Your task to perform on an android device: Find coffee shops on Maps Image 0: 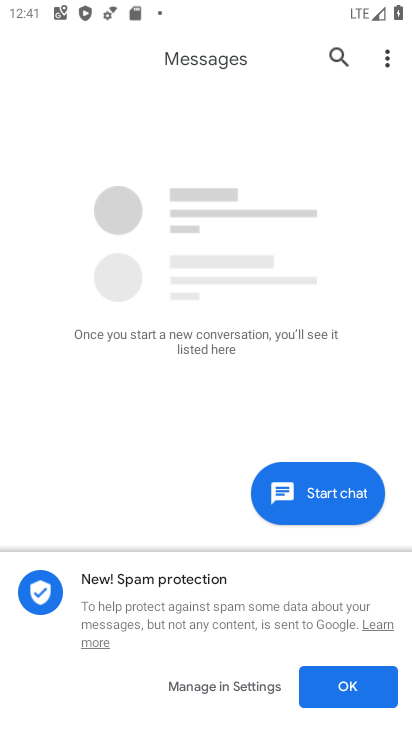
Step 0: press home button
Your task to perform on an android device: Find coffee shops on Maps Image 1: 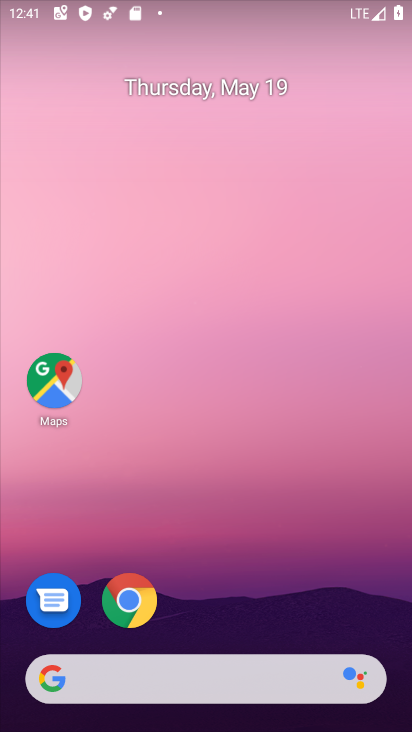
Step 1: click (49, 382)
Your task to perform on an android device: Find coffee shops on Maps Image 2: 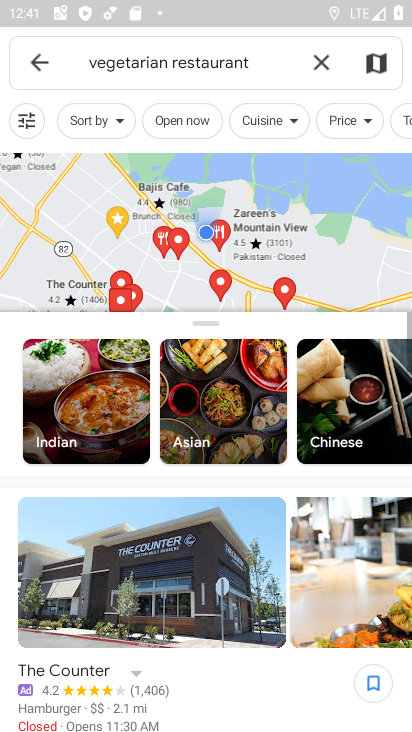
Step 2: click (318, 62)
Your task to perform on an android device: Find coffee shops on Maps Image 3: 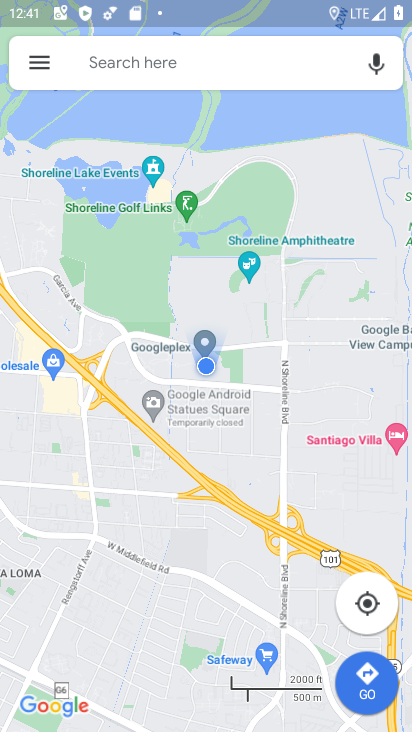
Step 3: click (180, 62)
Your task to perform on an android device: Find coffee shops on Maps Image 4: 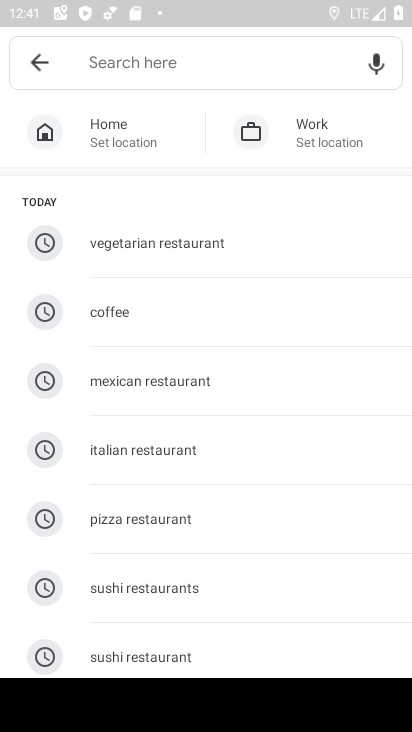
Step 4: click (113, 309)
Your task to perform on an android device: Find coffee shops on Maps Image 5: 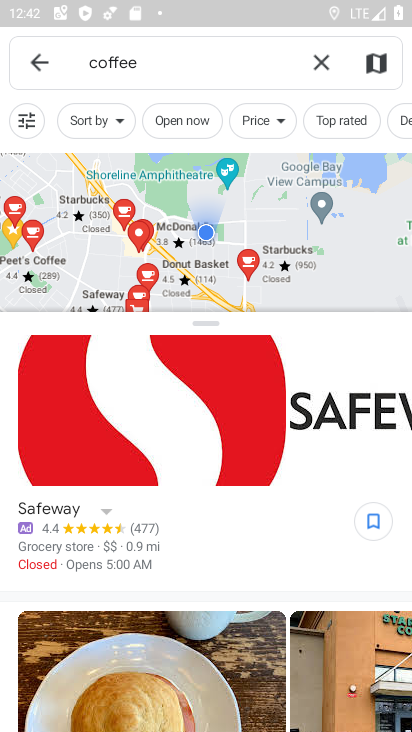
Step 5: task complete